Your task to perform on an android device: empty trash in google photos Image 0: 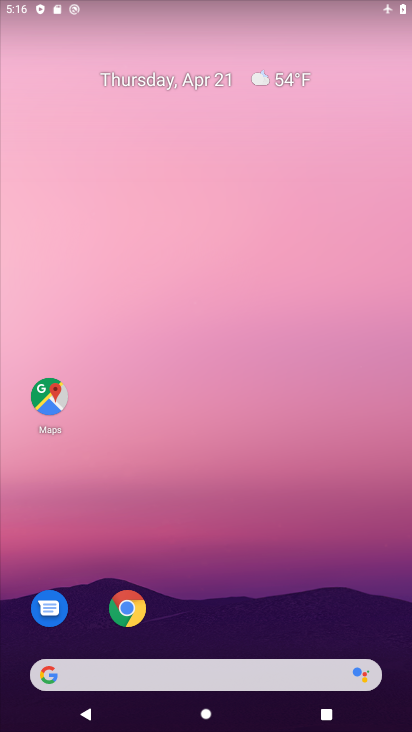
Step 0: drag from (224, 622) to (314, 34)
Your task to perform on an android device: empty trash in google photos Image 1: 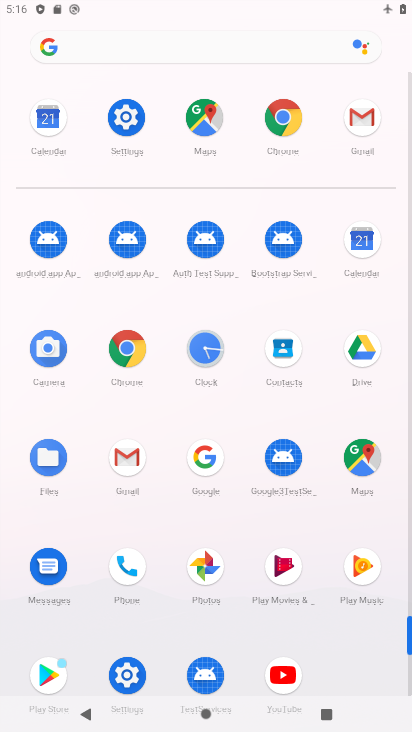
Step 1: click (358, 122)
Your task to perform on an android device: empty trash in google photos Image 2: 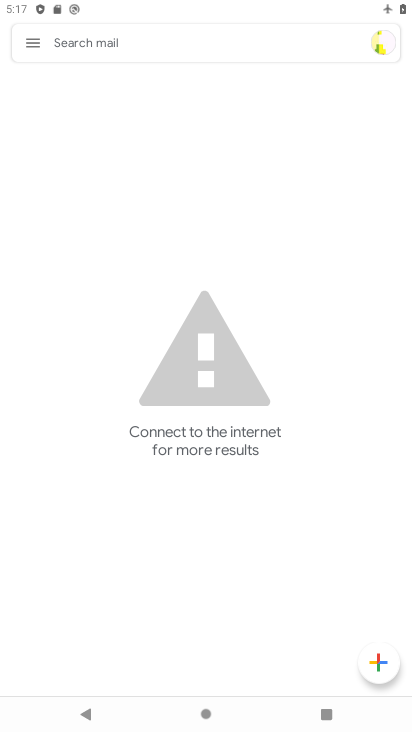
Step 2: task complete